Your task to perform on an android device: Open eBay Image 0: 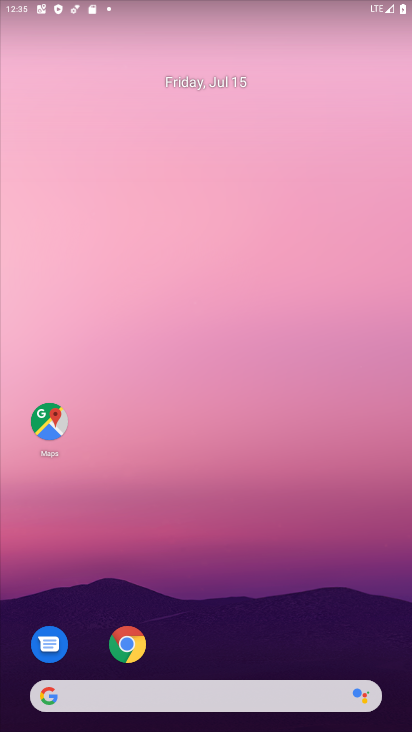
Step 0: click (117, 645)
Your task to perform on an android device: Open eBay Image 1: 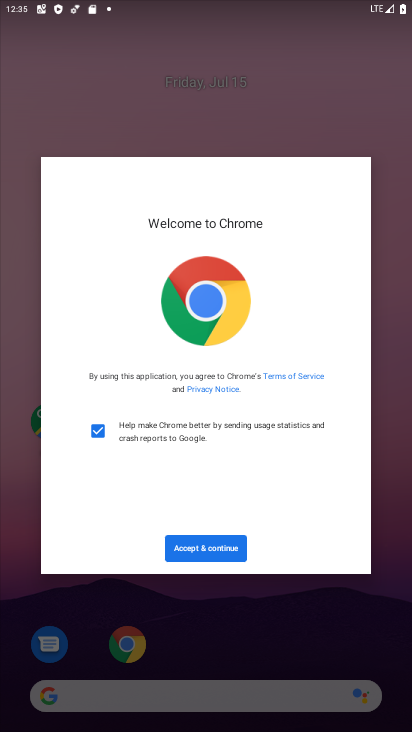
Step 1: click (243, 550)
Your task to perform on an android device: Open eBay Image 2: 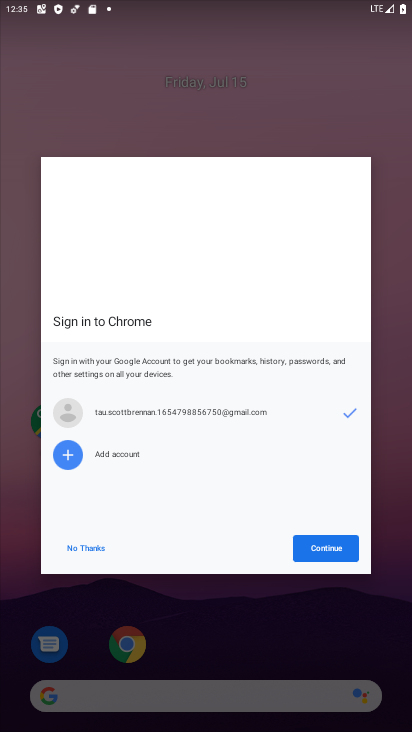
Step 2: click (72, 552)
Your task to perform on an android device: Open eBay Image 3: 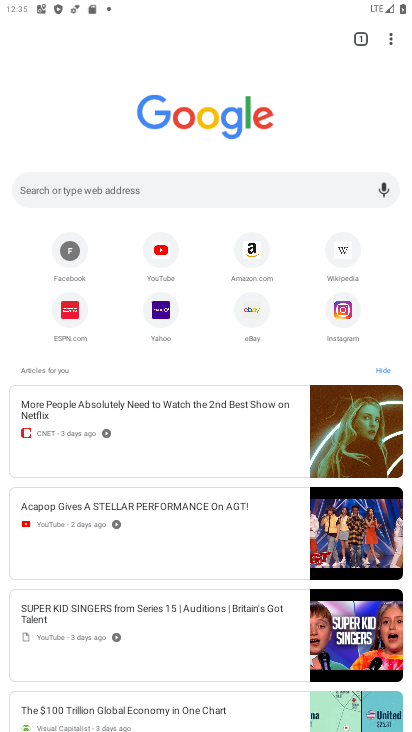
Step 3: click (258, 303)
Your task to perform on an android device: Open eBay Image 4: 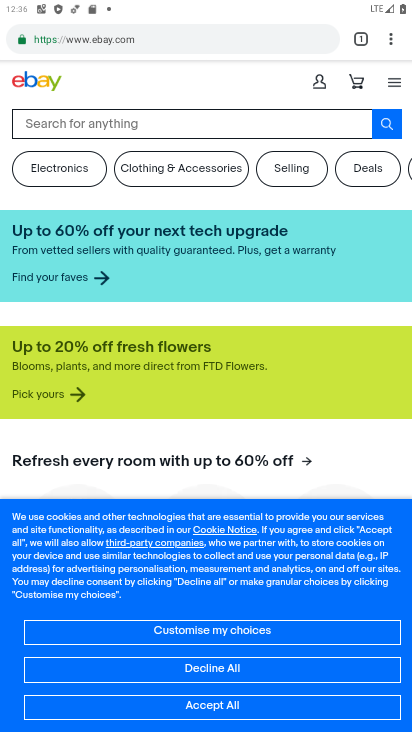
Step 4: task complete